Your task to perform on an android device: What's on my calendar today? Image 0: 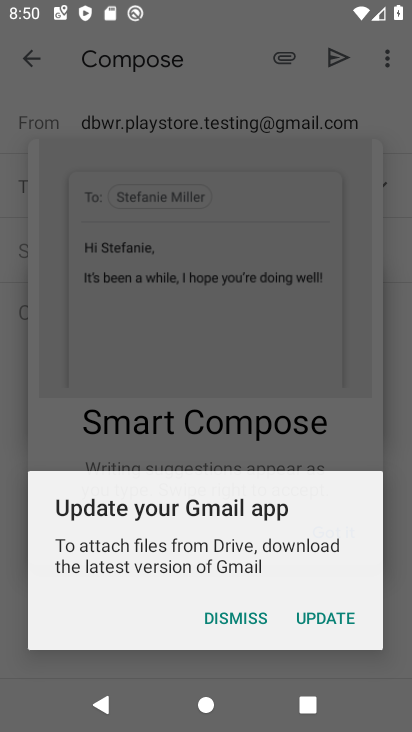
Step 0: press home button
Your task to perform on an android device: What's on my calendar today? Image 1: 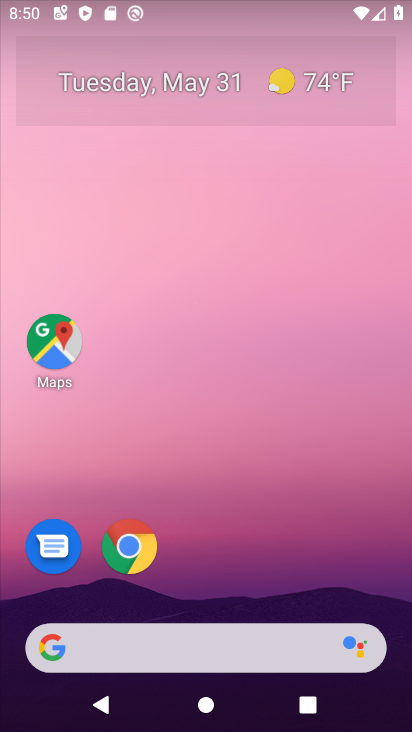
Step 1: drag from (268, 537) to (293, 0)
Your task to perform on an android device: What's on my calendar today? Image 2: 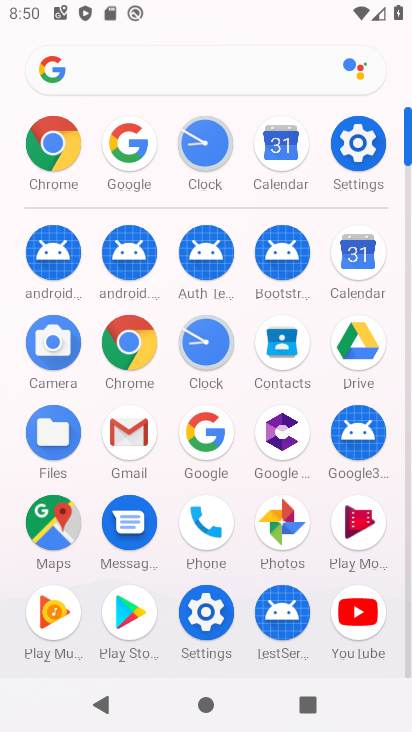
Step 2: click (276, 137)
Your task to perform on an android device: What's on my calendar today? Image 3: 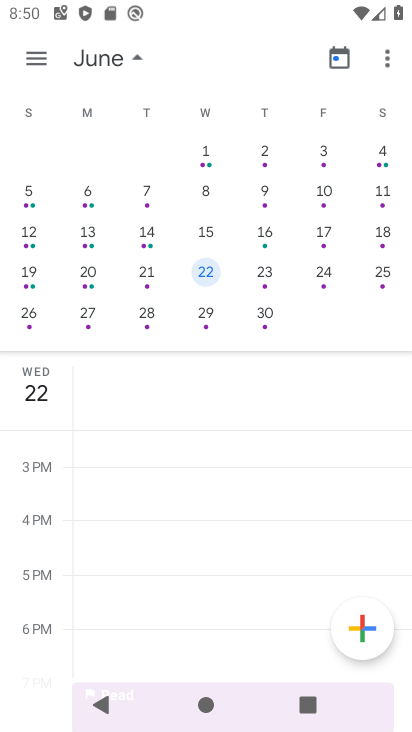
Step 3: drag from (67, 311) to (383, 288)
Your task to perform on an android device: What's on my calendar today? Image 4: 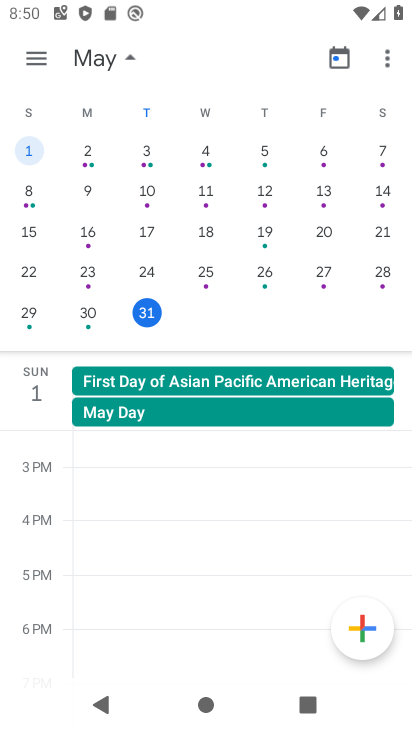
Step 4: click (150, 317)
Your task to perform on an android device: What's on my calendar today? Image 5: 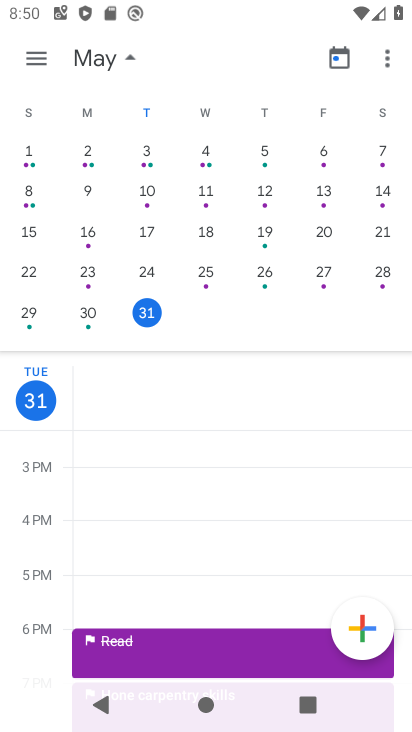
Step 5: task complete